Your task to perform on an android device: Search for vegetarian restaurants on Maps Image 0: 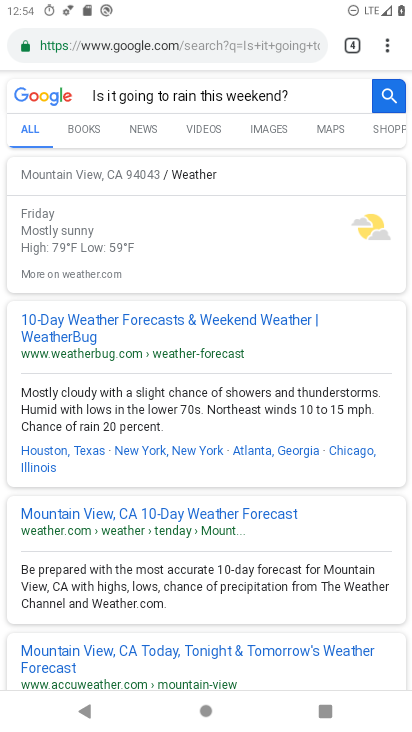
Step 0: press home button
Your task to perform on an android device: Search for vegetarian restaurants on Maps Image 1: 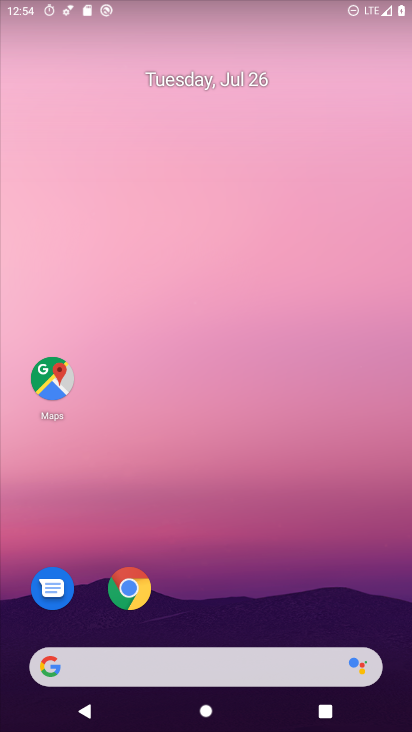
Step 1: drag from (256, 437) to (283, 158)
Your task to perform on an android device: Search for vegetarian restaurants on Maps Image 2: 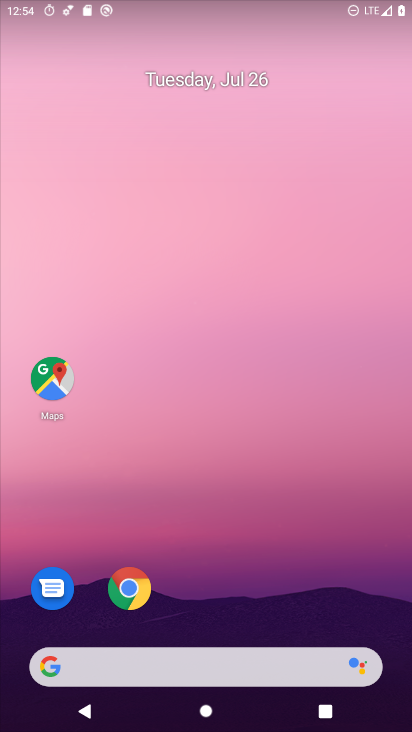
Step 2: drag from (244, 344) to (252, 77)
Your task to perform on an android device: Search for vegetarian restaurants on Maps Image 3: 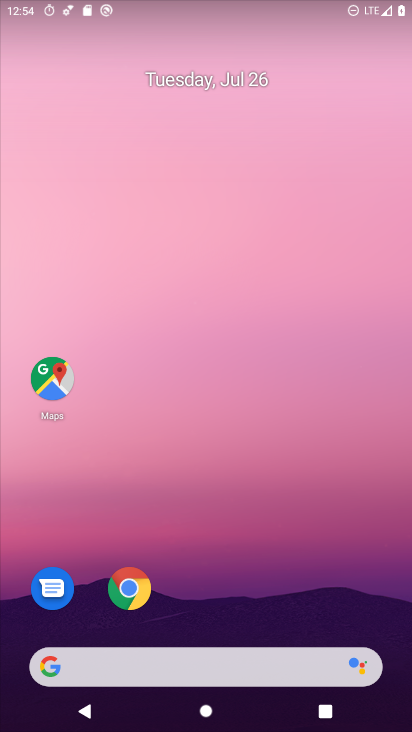
Step 3: drag from (224, 600) to (250, 8)
Your task to perform on an android device: Search for vegetarian restaurants on Maps Image 4: 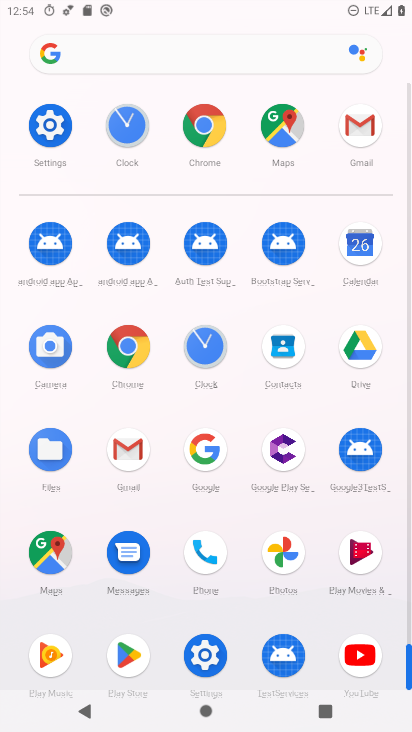
Step 4: click (47, 562)
Your task to perform on an android device: Search for vegetarian restaurants on Maps Image 5: 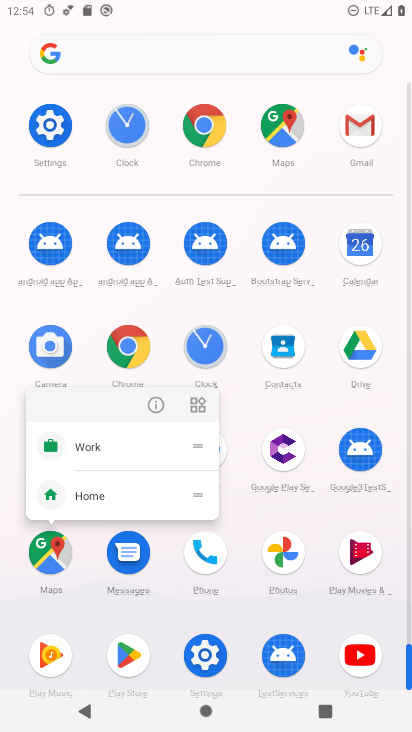
Step 5: click (56, 566)
Your task to perform on an android device: Search for vegetarian restaurants on Maps Image 6: 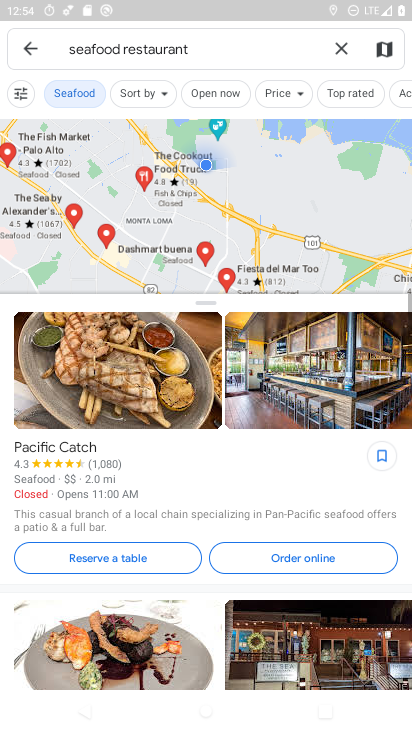
Step 6: click (344, 53)
Your task to perform on an android device: Search for vegetarian restaurants on Maps Image 7: 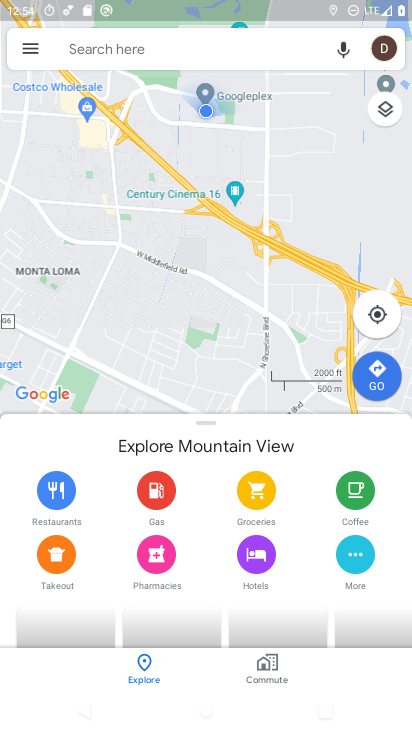
Step 7: click (251, 53)
Your task to perform on an android device: Search for vegetarian restaurants on Maps Image 8: 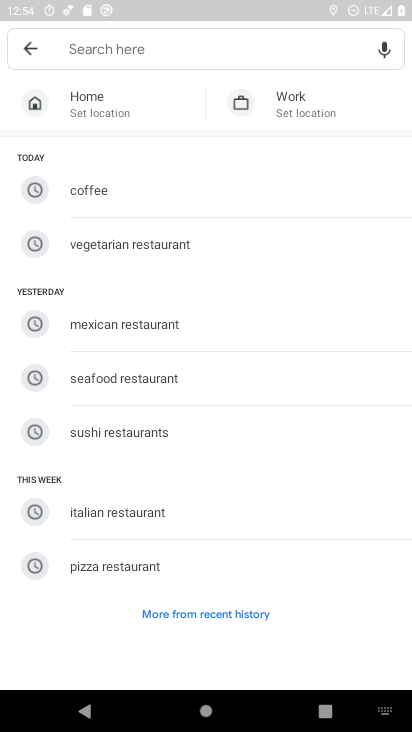
Step 8: click (177, 249)
Your task to perform on an android device: Search for vegetarian restaurants on Maps Image 9: 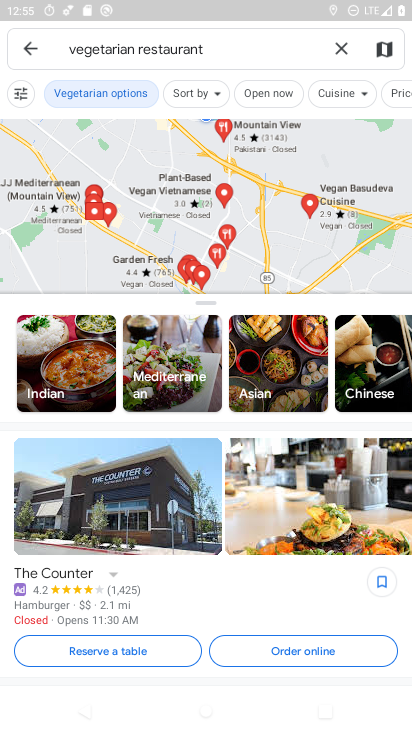
Step 9: task complete